Your task to perform on an android device: Go to calendar. Show me events next week Image 0: 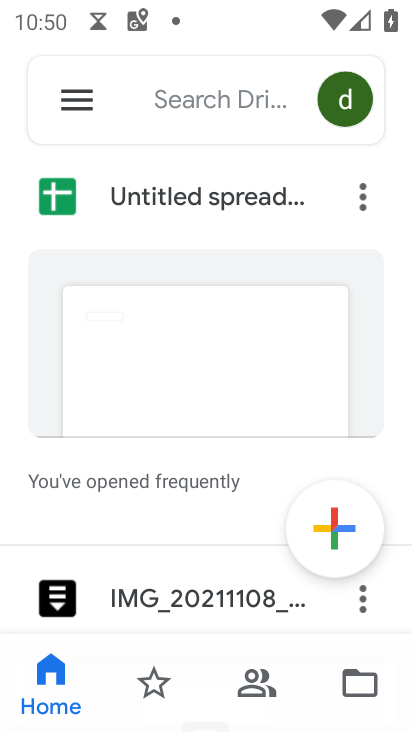
Step 0: press home button
Your task to perform on an android device: Go to calendar. Show me events next week Image 1: 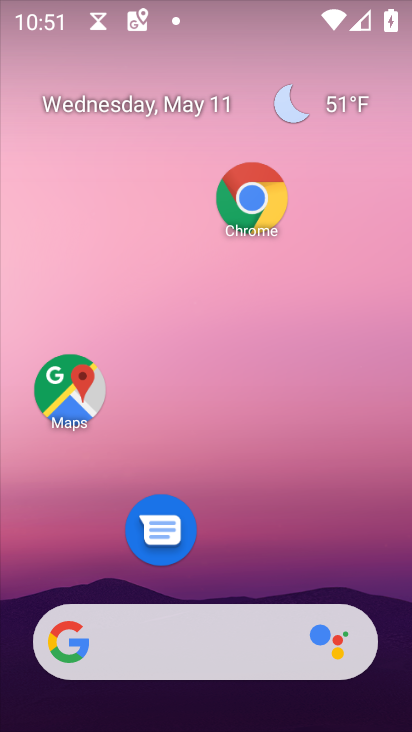
Step 1: drag from (255, 366) to (243, 215)
Your task to perform on an android device: Go to calendar. Show me events next week Image 2: 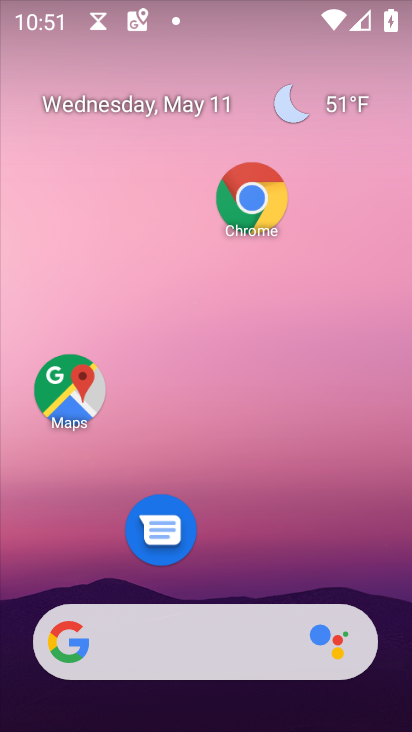
Step 2: drag from (235, 547) to (237, 154)
Your task to perform on an android device: Go to calendar. Show me events next week Image 3: 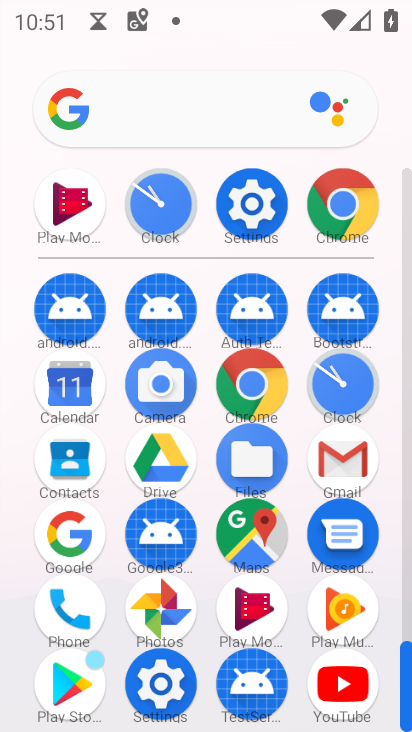
Step 3: click (60, 411)
Your task to perform on an android device: Go to calendar. Show me events next week Image 4: 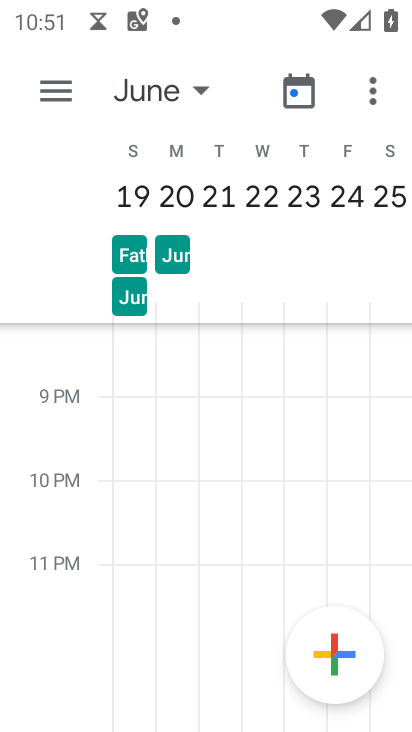
Step 4: click (133, 90)
Your task to perform on an android device: Go to calendar. Show me events next week Image 5: 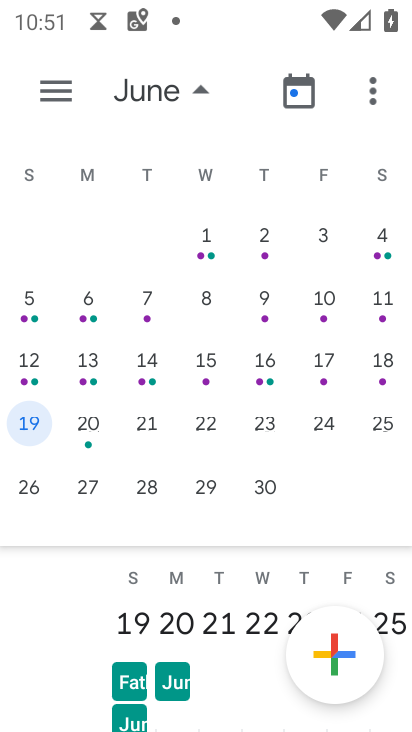
Step 5: drag from (109, 349) to (354, 374)
Your task to perform on an android device: Go to calendar. Show me events next week Image 6: 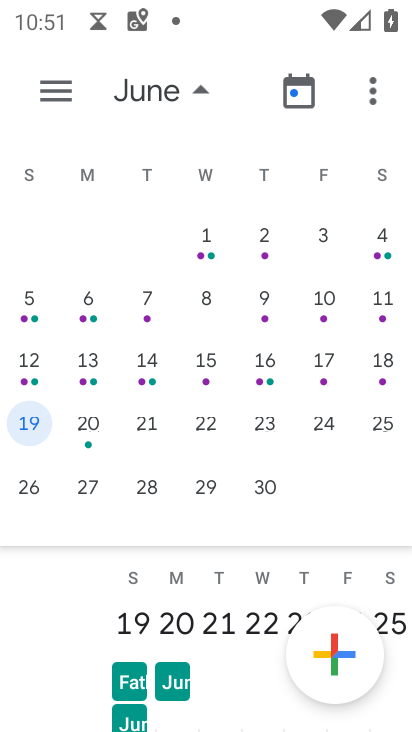
Step 6: drag from (86, 323) to (403, 318)
Your task to perform on an android device: Go to calendar. Show me events next week Image 7: 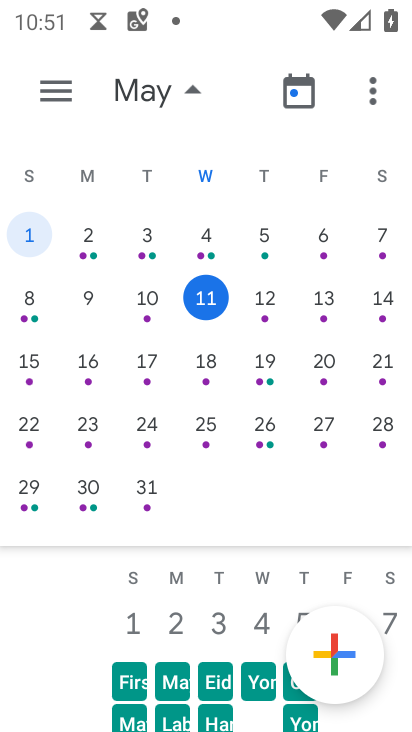
Step 7: click (35, 370)
Your task to perform on an android device: Go to calendar. Show me events next week Image 8: 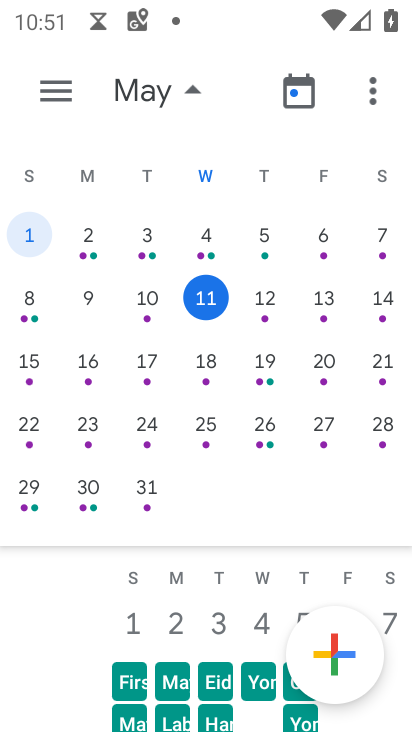
Step 8: click (31, 369)
Your task to perform on an android device: Go to calendar. Show me events next week Image 9: 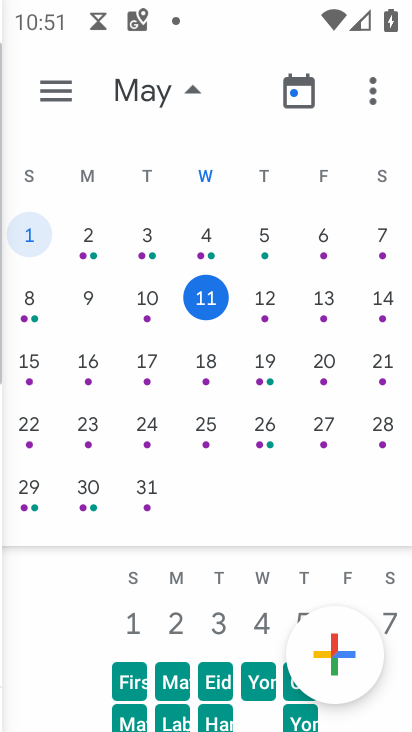
Step 9: click (31, 369)
Your task to perform on an android device: Go to calendar. Show me events next week Image 10: 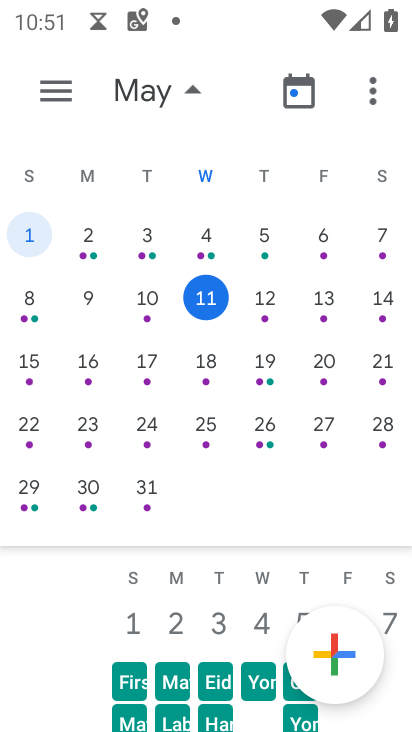
Step 10: click (28, 361)
Your task to perform on an android device: Go to calendar. Show me events next week Image 11: 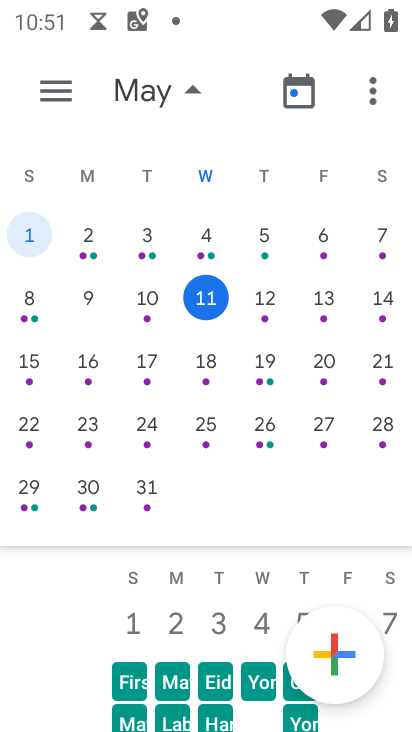
Step 11: click (28, 361)
Your task to perform on an android device: Go to calendar. Show me events next week Image 12: 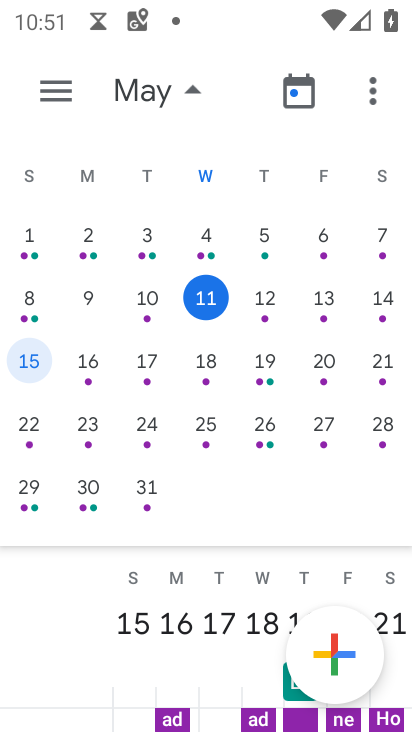
Step 12: task complete